Your task to perform on an android device: Go to Maps Image 0: 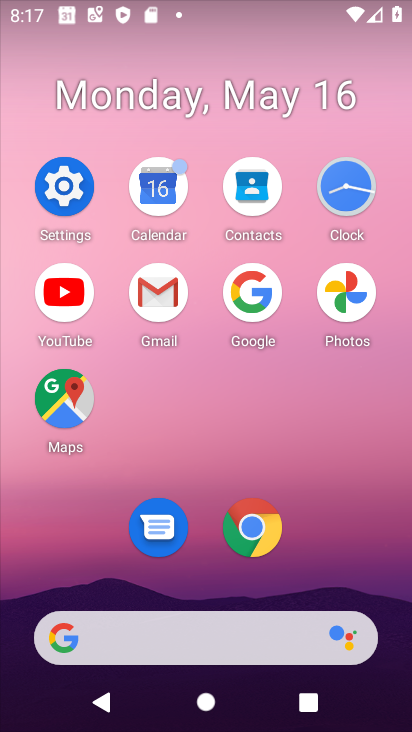
Step 0: click (50, 416)
Your task to perform on an android device: Go to Maps Image 1: 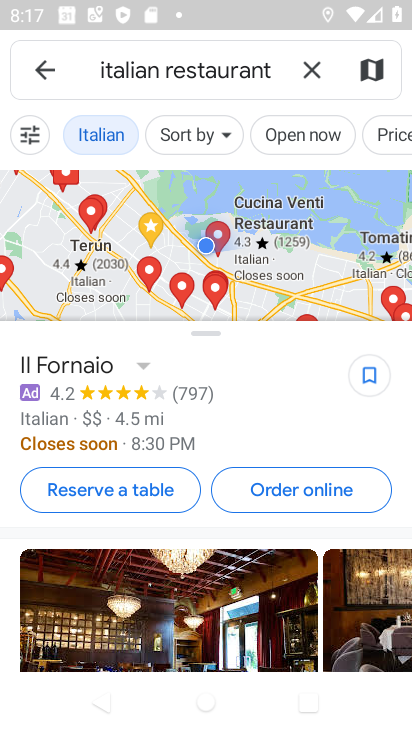
Step 1: task complete